Your task to perform on an android device: toggle translation in the chrome app Image 0: 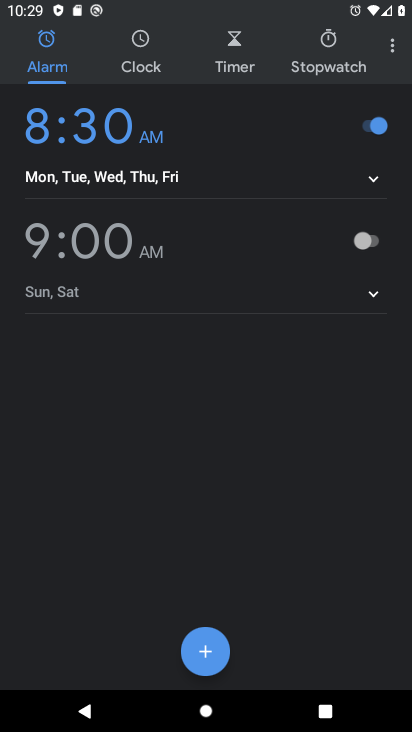
Step 0: press back button
Your task to perform on an android device: toggle translation in the chrome app Image 1: 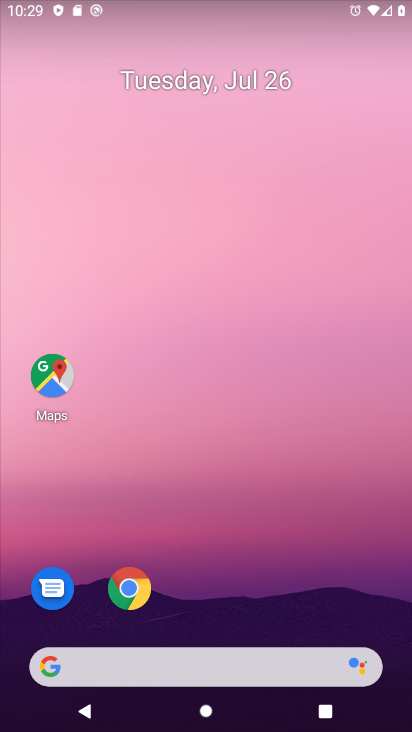
Step 1: click (129, 592)
Your task to perform on an android device: toggle translation in the chrome app Image 2: 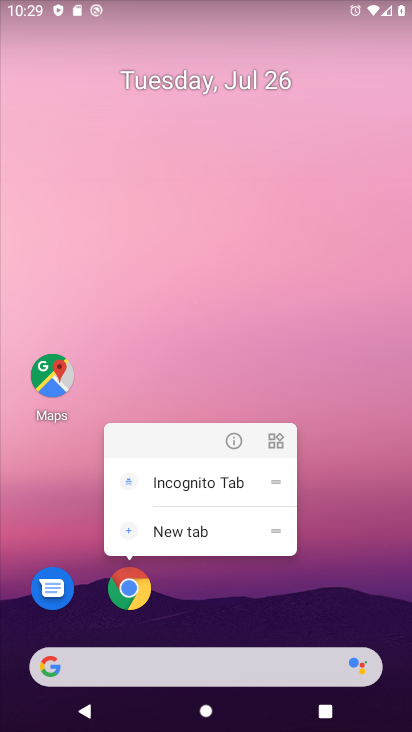
Step 2: click (136, 589)
Your task to perform on an android device: toggle translation in the chrome app Image 3: 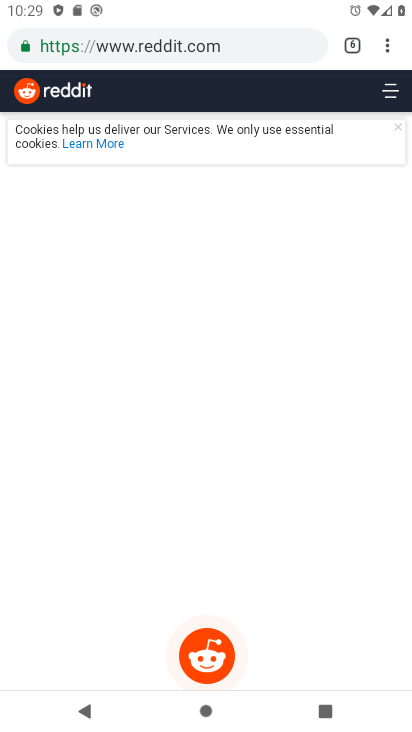
Step 3: drag from (382, 38) to (229, 543)
Your task to perform on an android device: toggle translation in the chrome app Image 4: 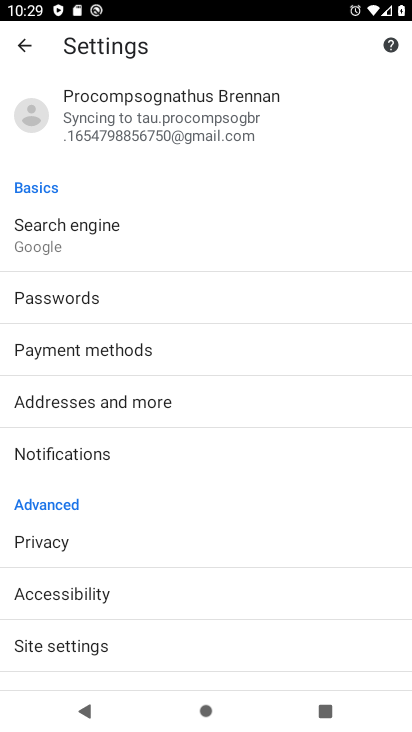
Step 4: drag from (133, 664) to (198, 231)
Your task to perform on an android device: toggle translation in the chrome app Image 5: 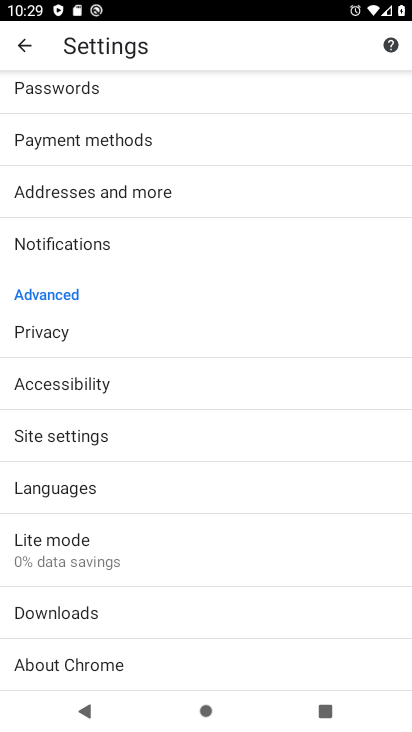
Step 5: click (94, 487)
Your task to perform on an android device: toggle translation in the chrome app Image 6: 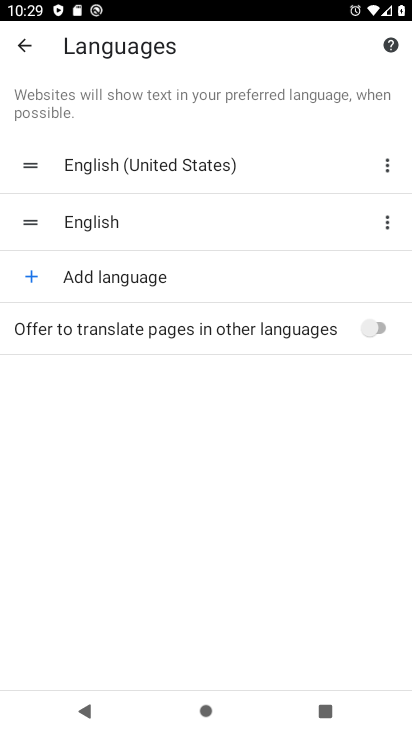
Step 6: click (371, 327)
Your task to perform on an android device: toggle translation in the chrome app Image 7: 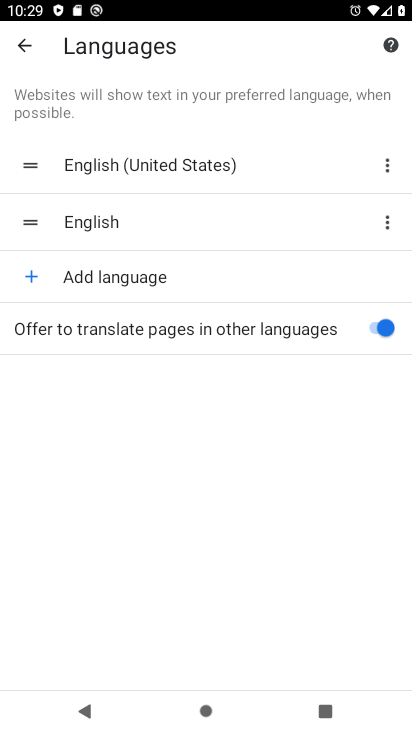
Step 7: task complete